Your task to perform on an android device: What's the weather going to be tomorrow? Image 0: 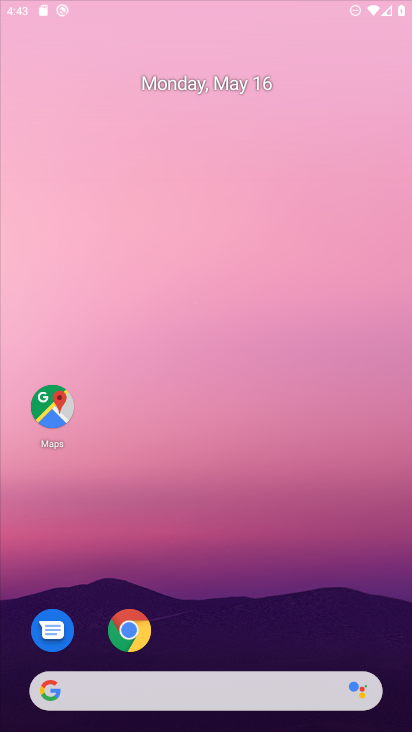
Step 0: press home button
Your task to perform on an android device: What's the weather going to be tomorrow? Image 1: 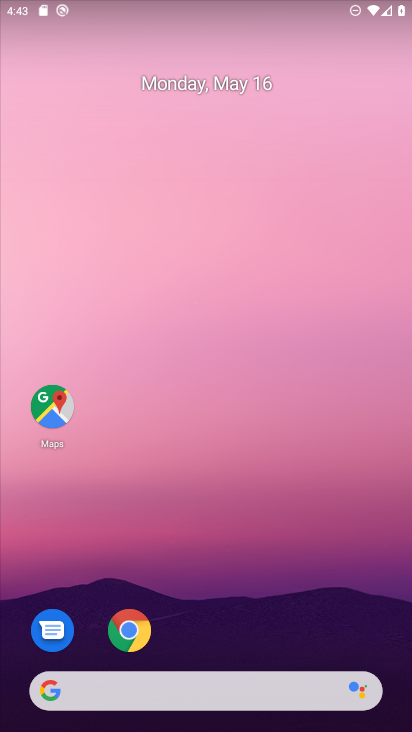
Step 1: click (143, 633)
Your task to perform on an android device: What's the weather going to be tomorrow? Image 2: 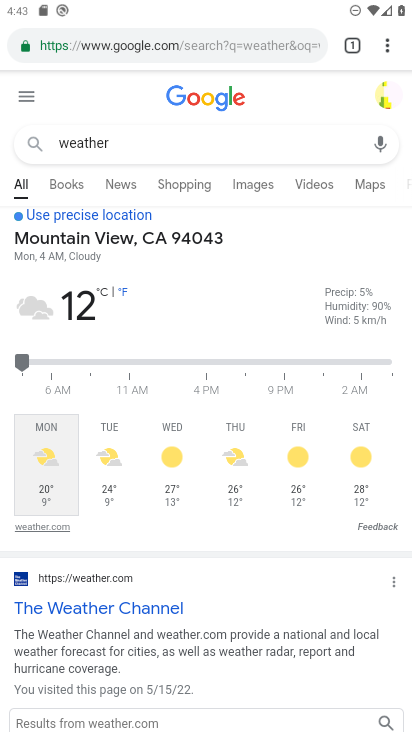
Step 2: click (209, 137)
Your task to perform on an android device: What's the weather going to be tomorrow? Image 3: 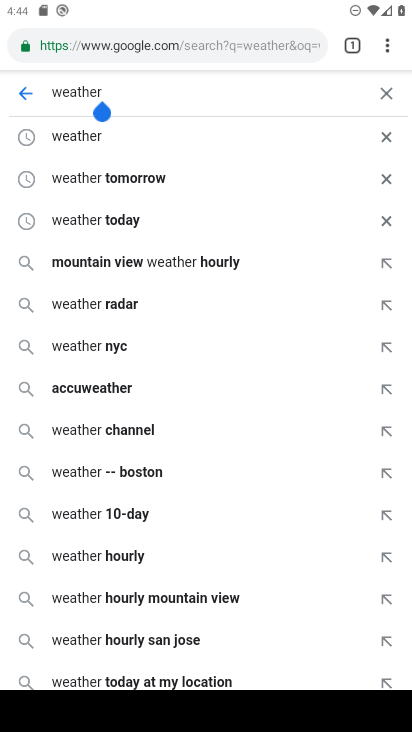
Step 3: click (391, 93)
Your task to perform on an android device: What's the weather going to be tomorrow? Image 4: 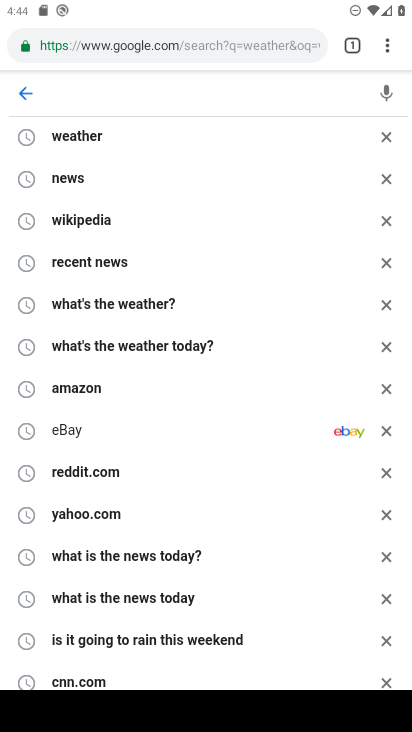
Step 4: type " What's the weather going to be tomorrow?"
Your task to perform on an android device: What's the weather going to be tomorrow? Image 5: 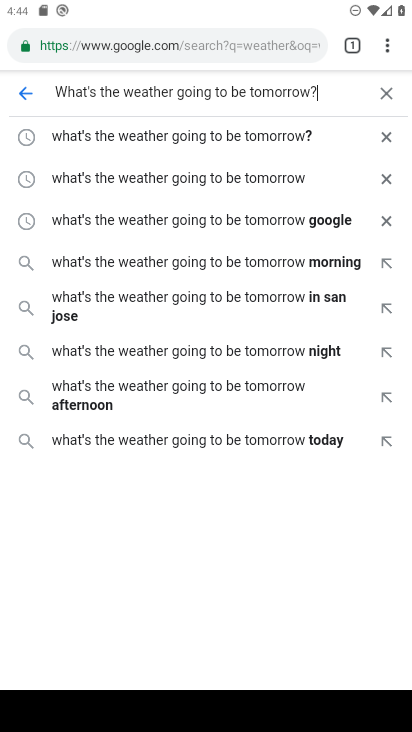
Step 5: type ""
Your task to perform on an android device: What's the weather going to be tomorrow? Image 6: 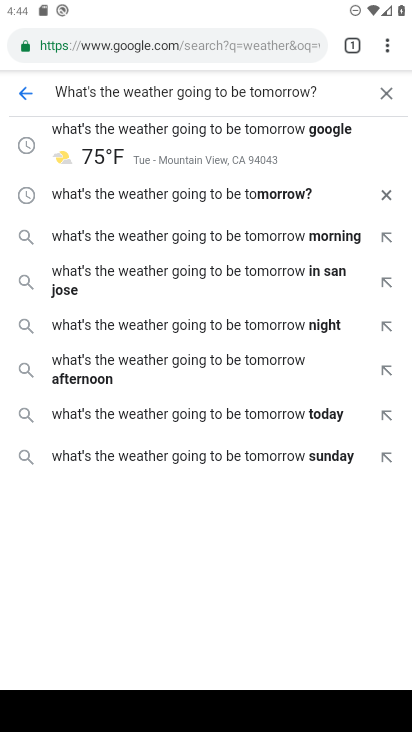
Step 6: click (121, 131)
Your task to perform on an android device: What's the weather going to be tomorrow? Image 7: 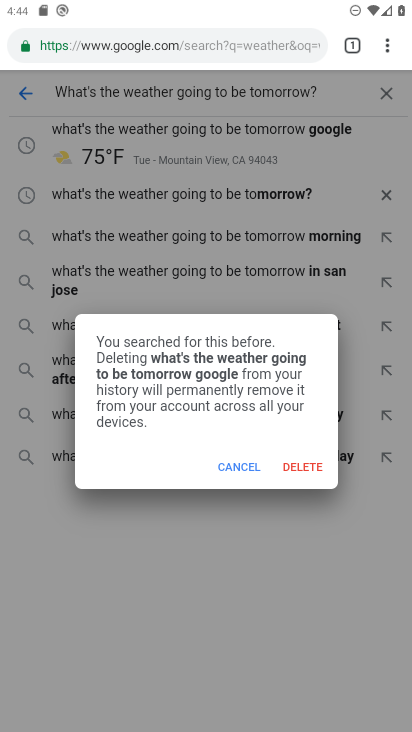
Step 7: click (125, 136)
Your task to perform on an android device: What's the weather going to be tomorrow? Image 8: 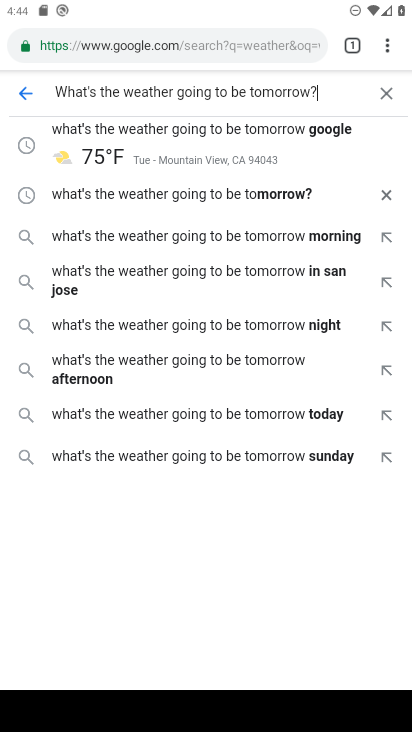
Step 8: click (125, 136)
Your task to perform on an android device: What's the weather going to be tomorrow? Image 9: 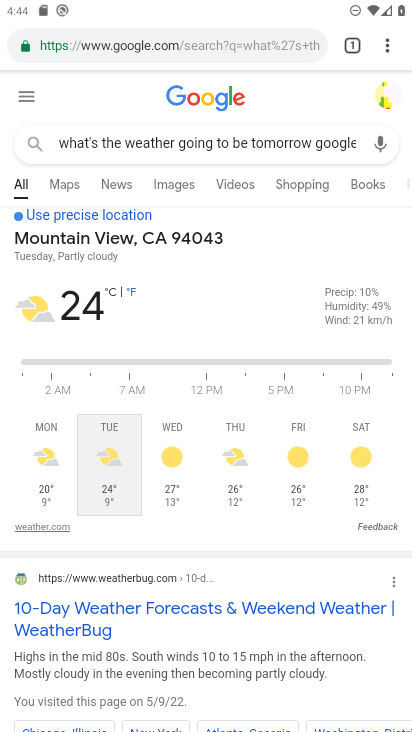
Step 9: task complete